Your task to perform on an android device: Go to eBay Image 0: 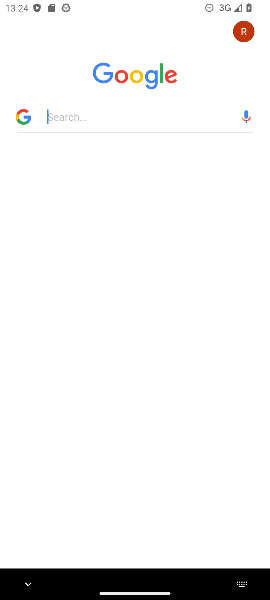
Step 0: press home button
Your task to perform on an android device: Go to eBay Image 1: 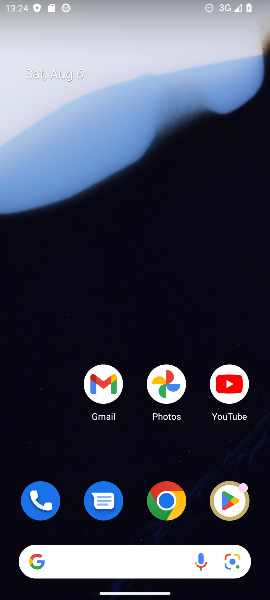
Step 1: click (166, 502)
Your task to perform on an android device: Go to eBay Image 2: 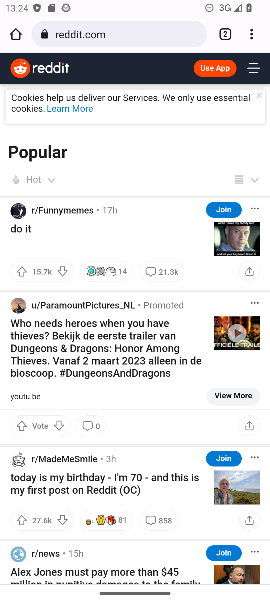
Step 2: press back button
Your task to perform on an android device: Go to eBay Image 3: 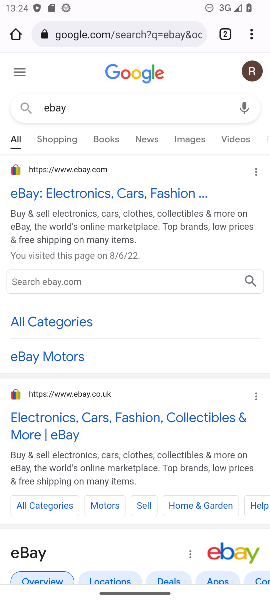
Step 3: click (53, 183)
Your task to perform on an android device: Go to eBay Image 4: 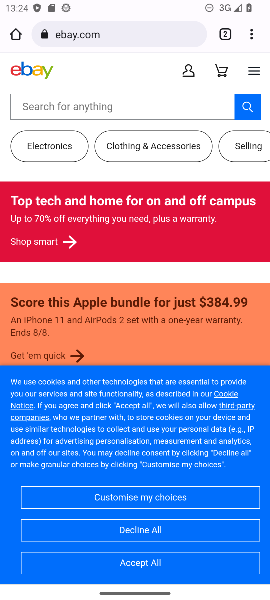
Step 4: task complete